Your task to perform on an android device: see sites visited before in the chrome app Image 0: 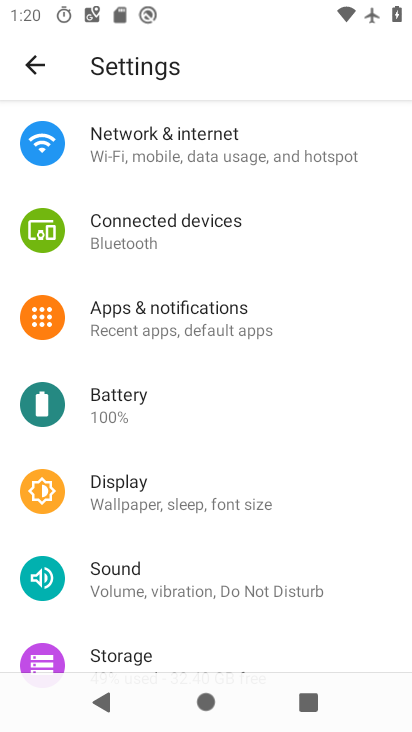
Step 0: press home button
Your task to perform on an android device: see sites visited before in the chrome app Image 1: 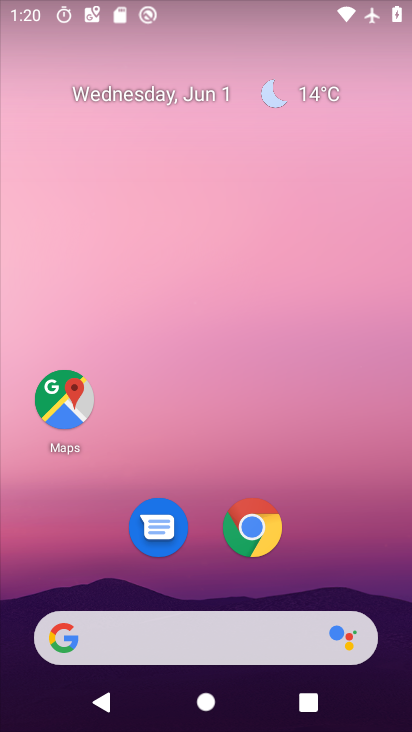
Step 1: click (254, 529)
Your task to perform on an android device: see sites visited before in the chrome app Image 2: 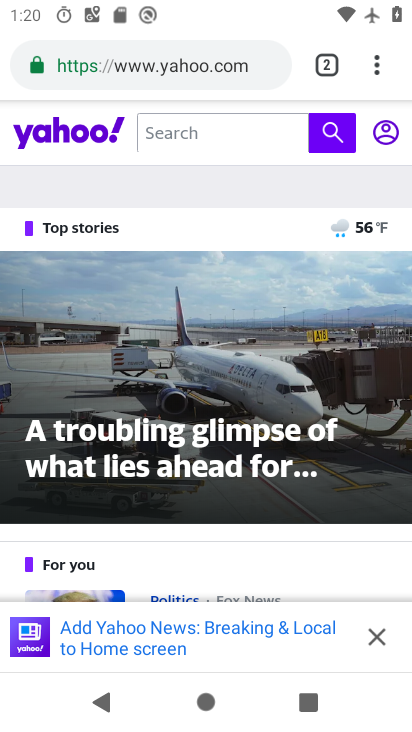
Step 2: click (378, 67)
Your task to perform on an android device: see sites visited before in the chrome app Image 3: 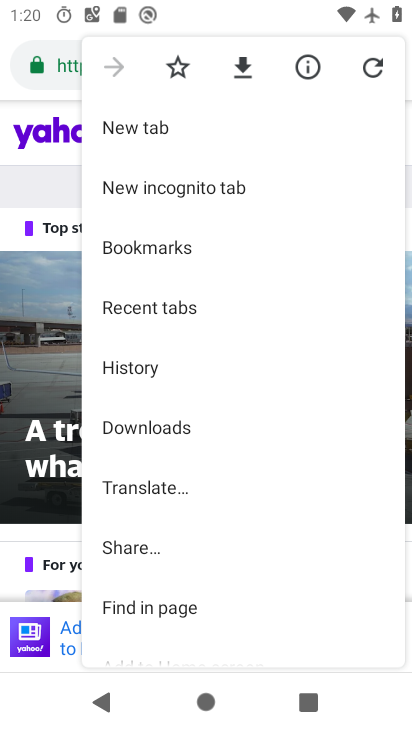
Step 3: click (112, 372)
Your task to perform on an android device: see sites visited before in the chrome app Image 4: 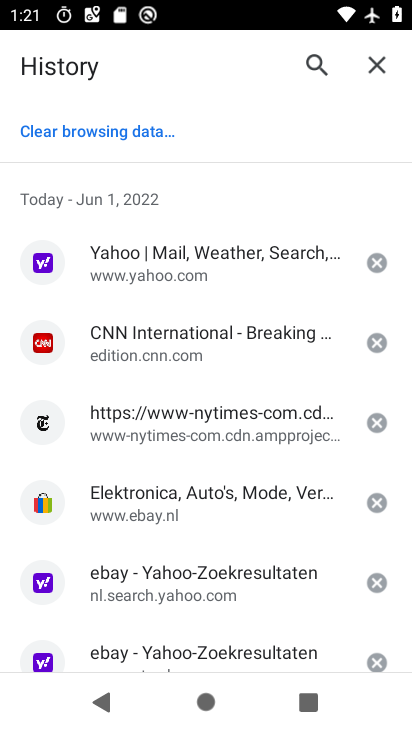
Step 4: task complete